Your task to perform on an android device: Open Reddit.com Image 0: 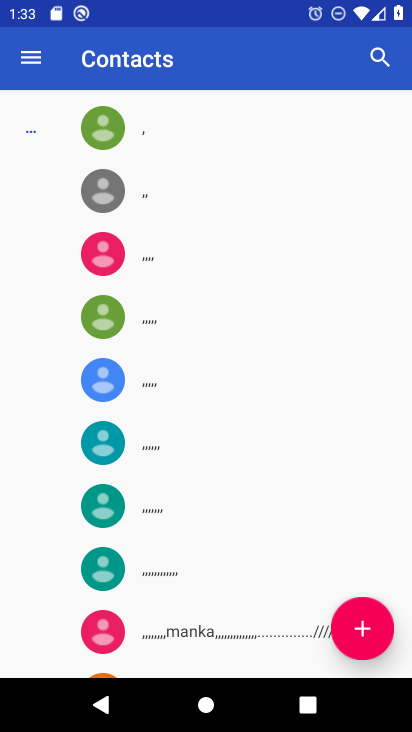
Step 0: press home button
Your task to perform on an android device: Open Reddit.com Image 1: 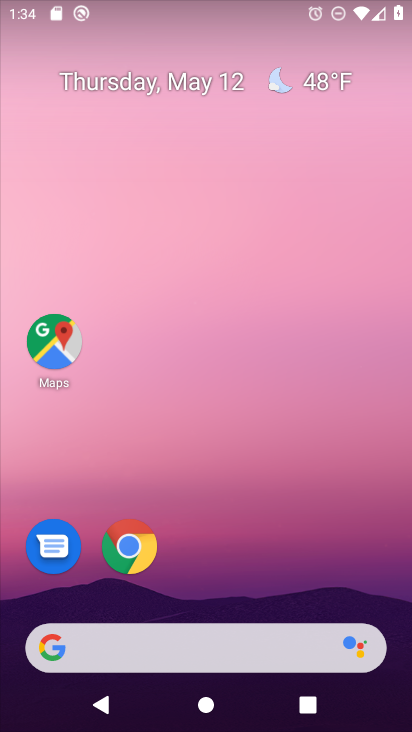
Step 1: drag from (210, 641) to (378, 101)
Your task to perform on an android device: Open Reddit.com Image 2: 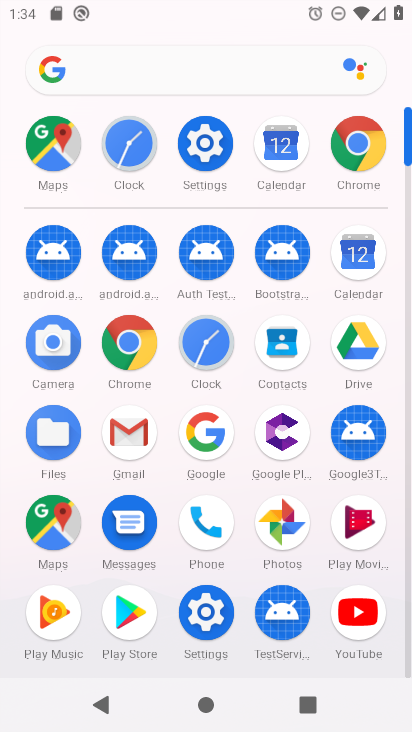
Step 2: click (353, 158)
Your task to perform on an android device: Open Reddit.com Image 3: 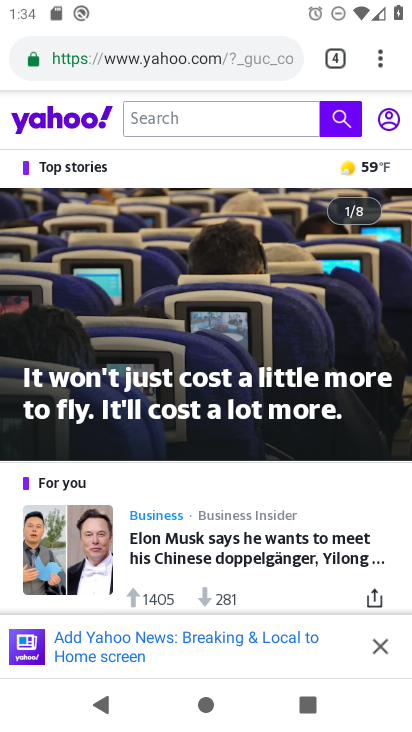
Step 3: drag from (379, 71) to (314, 115)
Your task to perform on an android device: Open Reddit.com Image 4: 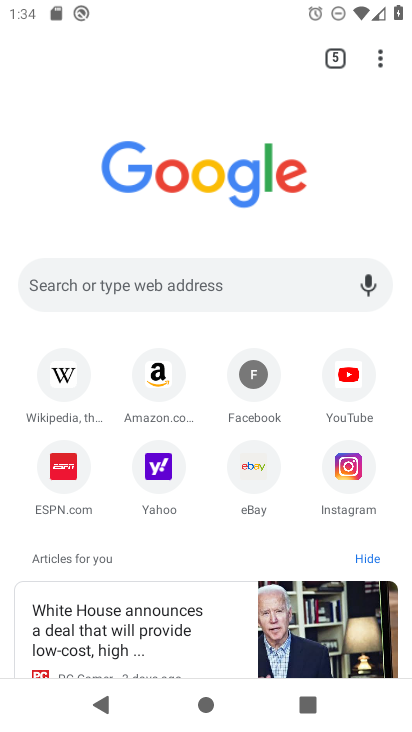
Step 4: click (96, 287)
Your task to perform on an android device: Open Reddit.com Image 5: 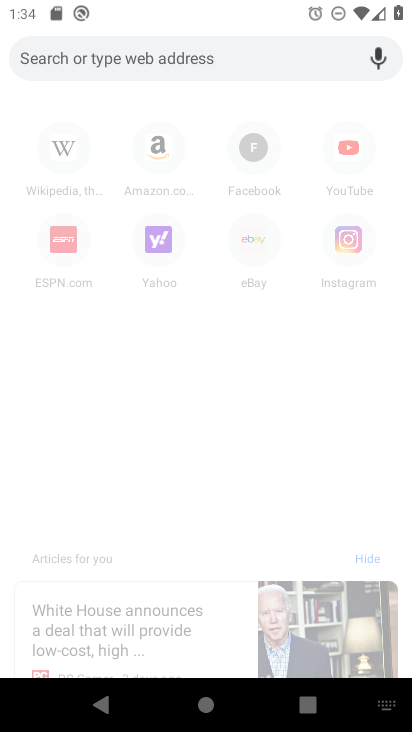
Step 5: type "reddit.com"
Your task to perform on an android device: Open Reddit.com Image 6: 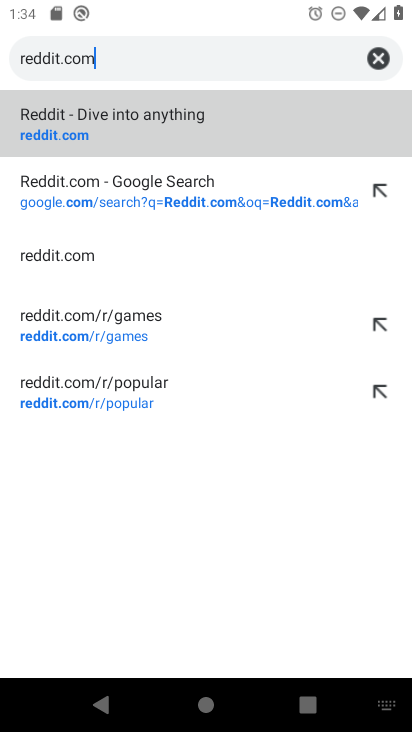
Step 6: click (150, 130)
Your task to perform on an android device: Open Reddit.com Image 7: 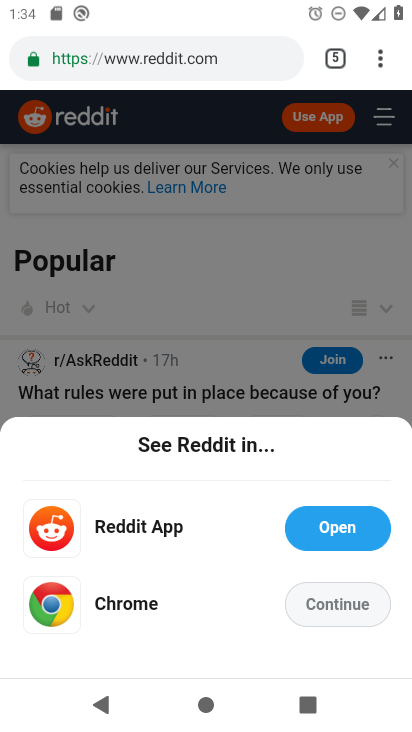
Step 7: task complete